Your task to perform on an android device: delete location history Image 0: 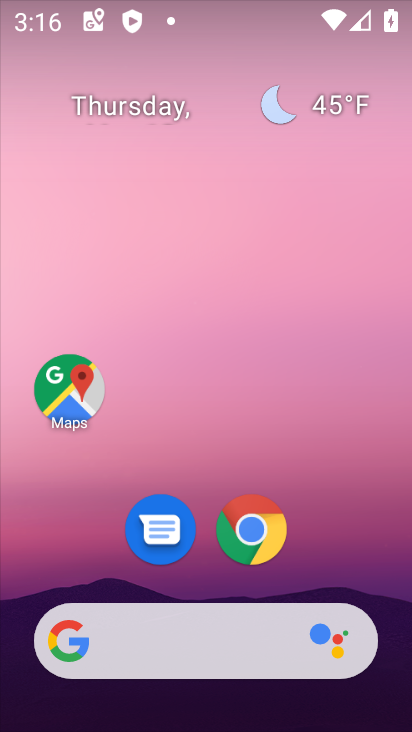
Step 0: drag from (364, 502) to (390, 2)
Your task to perform on an android device: delete location history Image 1: 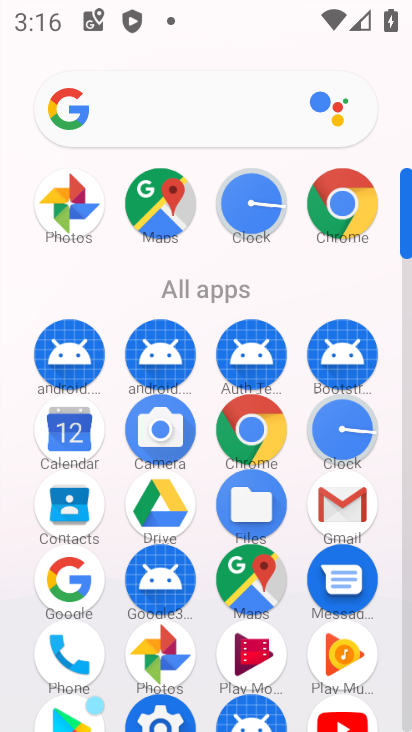
Step 1: drag from (384, 483) to (356, 23)
Your task to perform on an android device: delete location history Image 2: 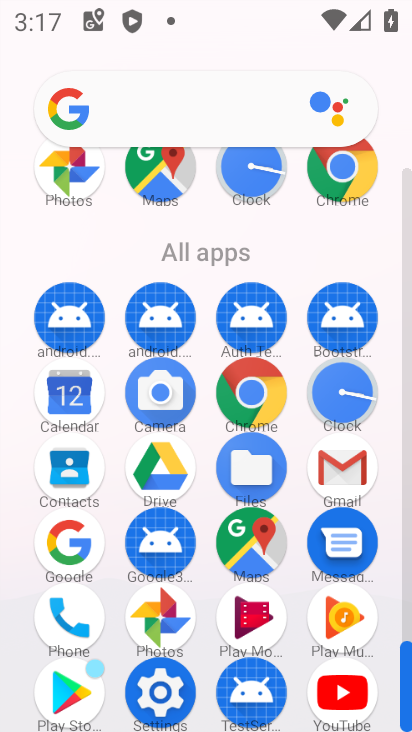
Step 2: click (142, 156)
Your task to perform on an android device: delete location history Image 3: 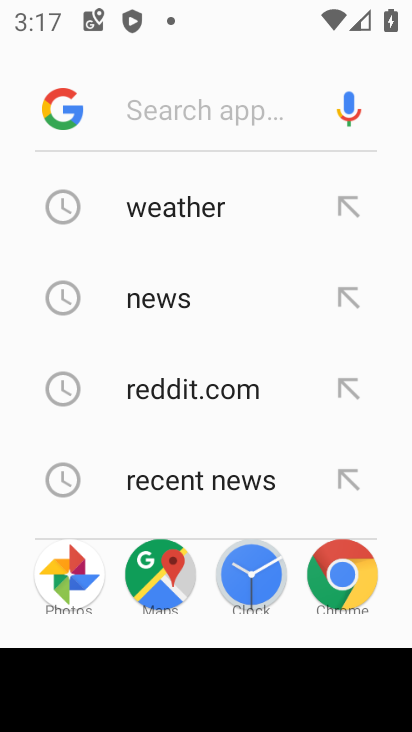
Step 3: drag from (225, 217) to (293, 545)
Your task to perform on an android device: delete location history Image 4: 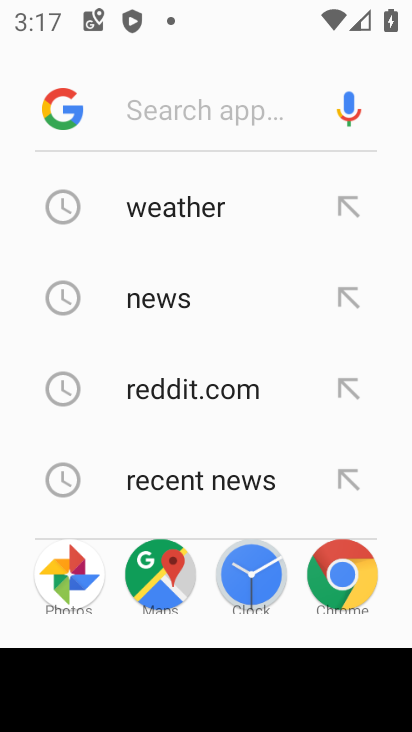
Step 4: press home button
Your task to perform on an android device: delete location history Image 5: 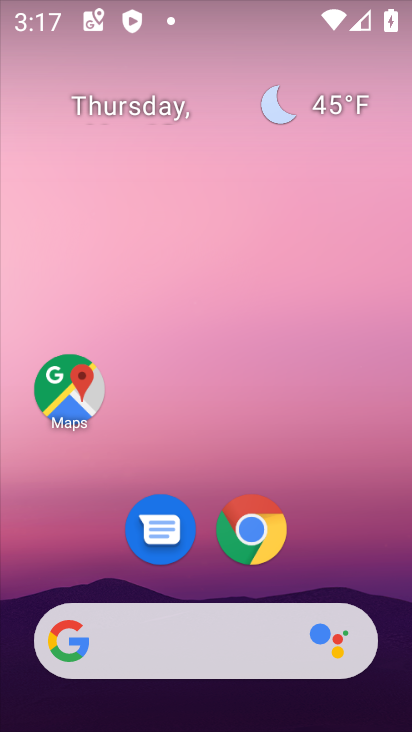
Step 5: click (75, 388)
Your task to perform on an android device: delete location history Image 6: 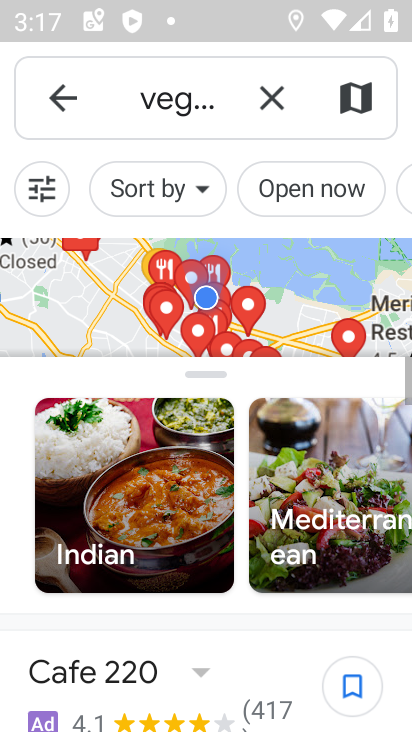
Step 6: click (87, 98)
Your task to perform on an android device: delete location history Image 7: 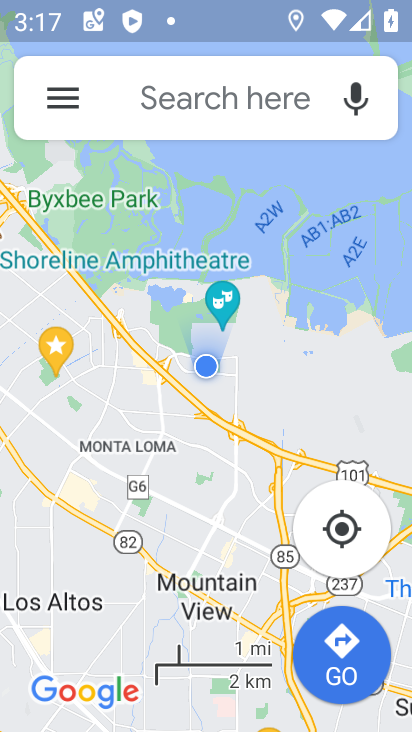
Step 7: click (43, 87)
Your task to perform on an android device: delete location history Image 8: 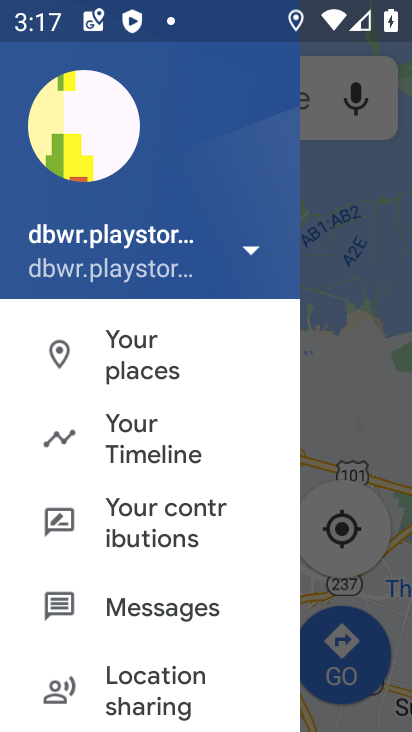
Step 8: click (172, 447)
Your task to perform on an android device: delete location history Image 9: 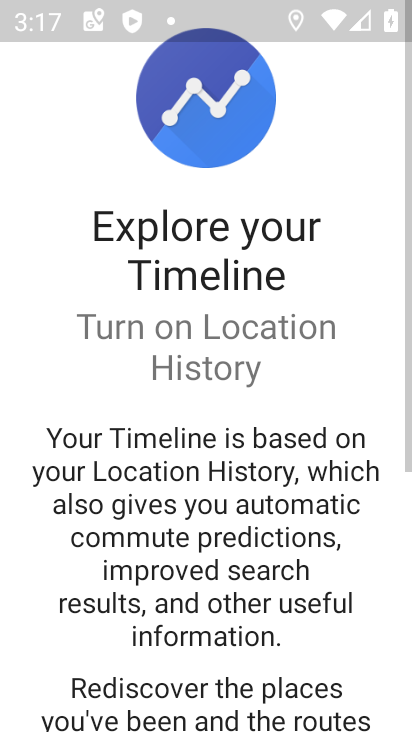
Step 9: drag from (227, 599) to (269, 218)
Your task to perform on an android device: delete location history Image 10: 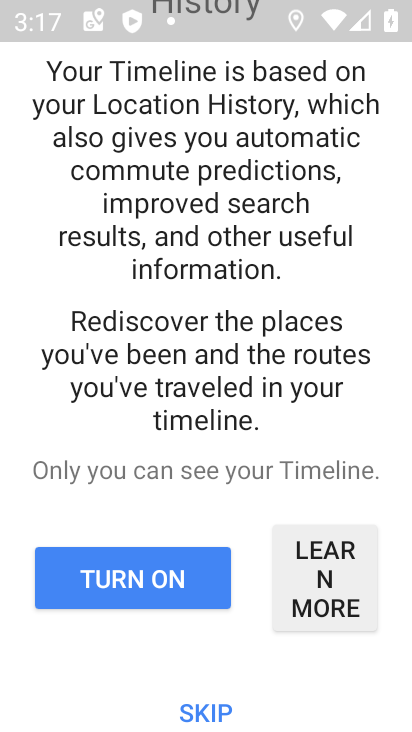
Step 10: drag from (229, 672) to (296, 281)
Your task to perform on an android device: delete location history Image 11: 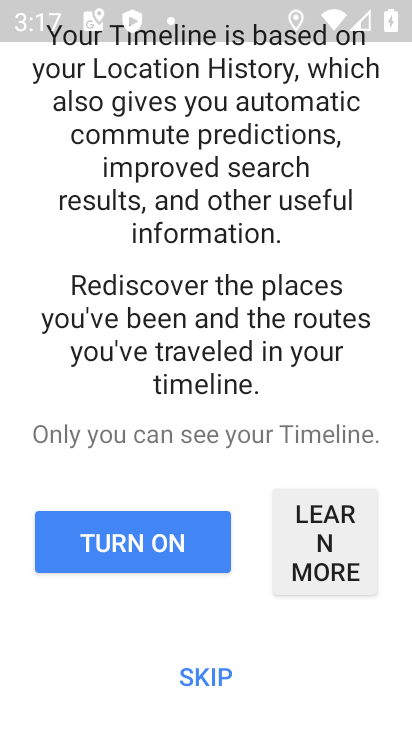
Step 11: click (349, 566)
Your task to perform on an android device: delete location history Image 12: 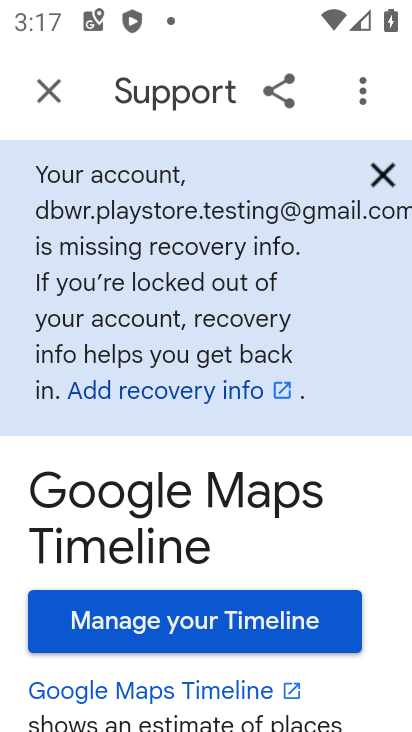
Step 12: drag from (268, 185) to (216, 558)
Your task to perform on an android device: delete location history Image 13: 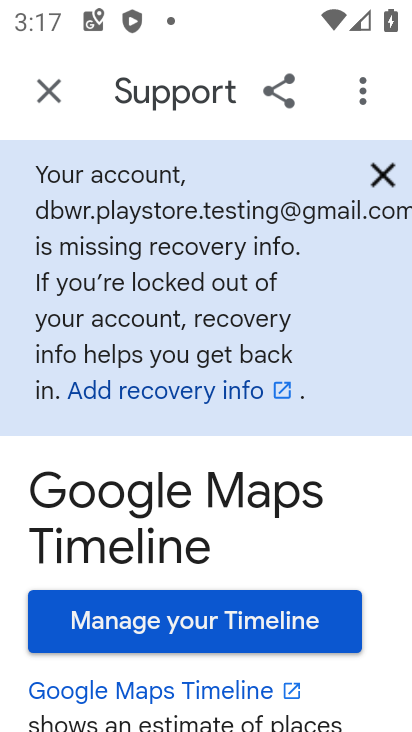
Step 13: click (355, 101)
Your task to perform on an android device: delete location history Image 14: 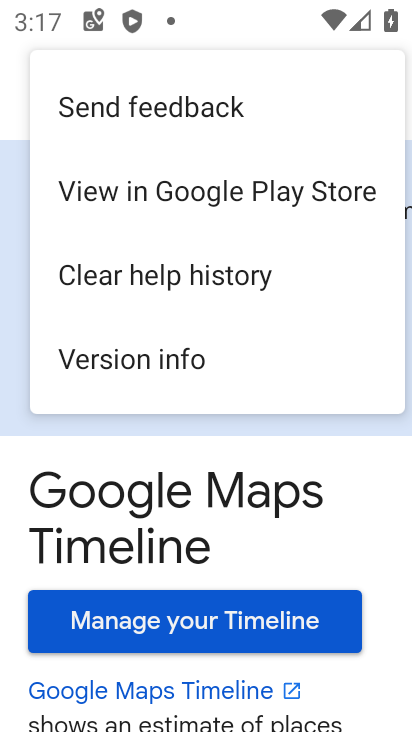
Step 14: click (347, 528)
Your task to perform on an android device: delete location history Image 15: 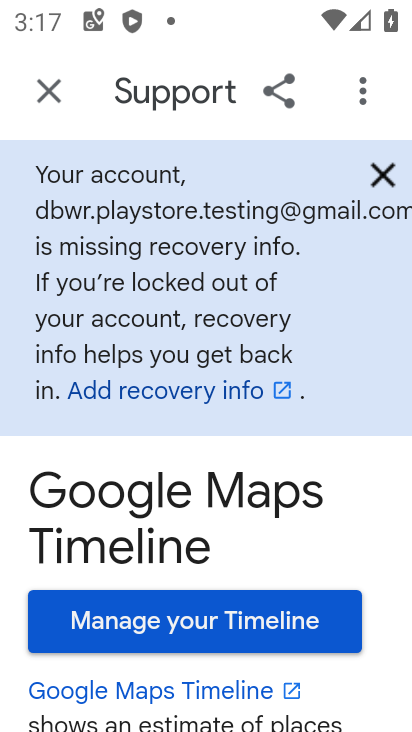
Step 15: drag from (347, 527) to (366, 231)
Your task to perform on an android device: delete location history Image 16: 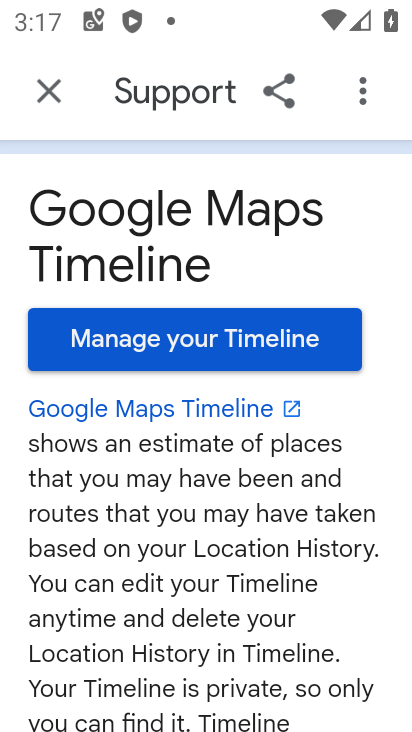
Step 16: drag from (221, 674) to (238, 260)
Your task to perform on an android device: delete location history Image 17: 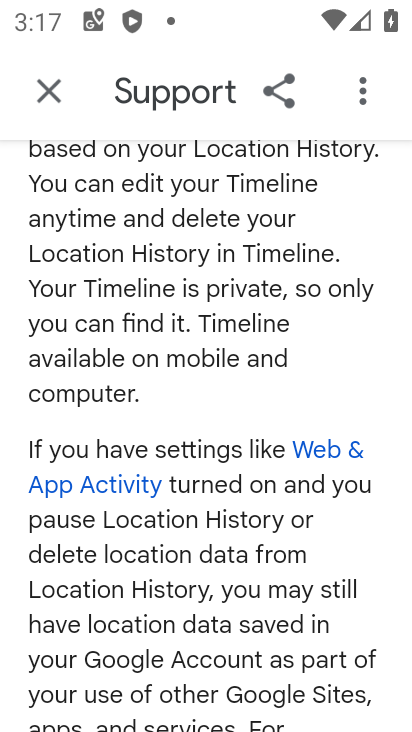
Step 17: drag from (197, 644) to (254, 174)
Your task to perform on an android device: delete location history Image 18: 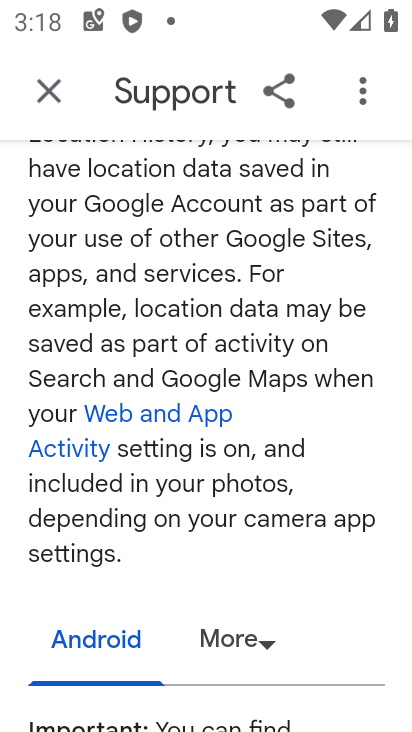
Step 18: drag from (146, 633) to (212, 125)
Your task to perform on an android device: delete location history Image 19: 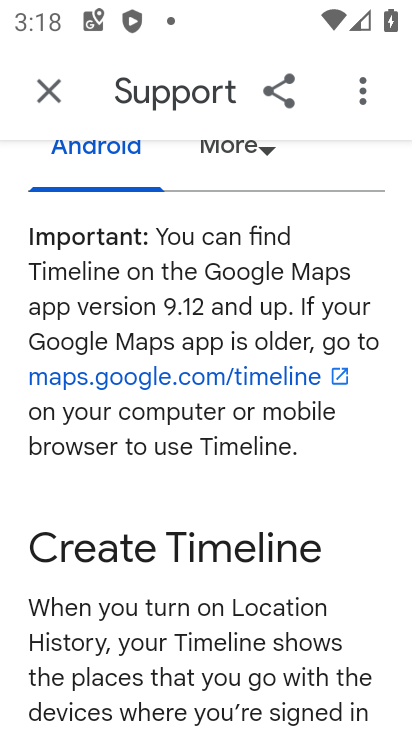
Step 19: click (56, 89)
Your task to perform on an android device: delete location history Image 20: 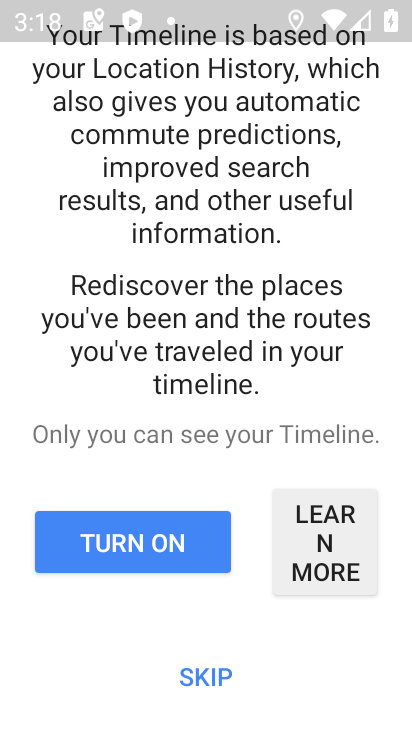
Step 20: click (206, 679)
Your task to perform on an android device: delete location history Image 21: 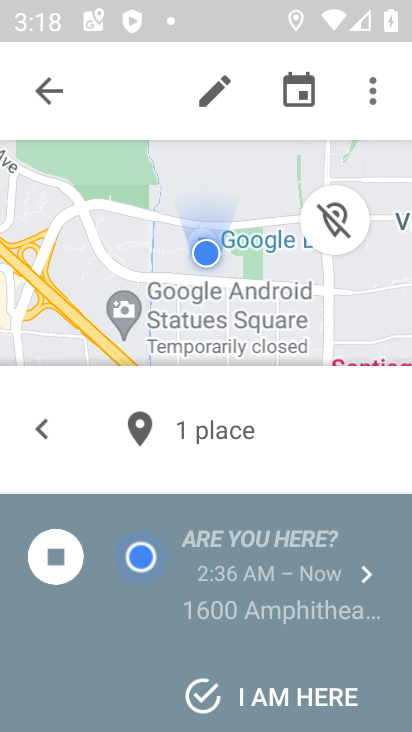
Step 21: click (361, 95)
Your task to perform on an android device: delete location history Image 22: 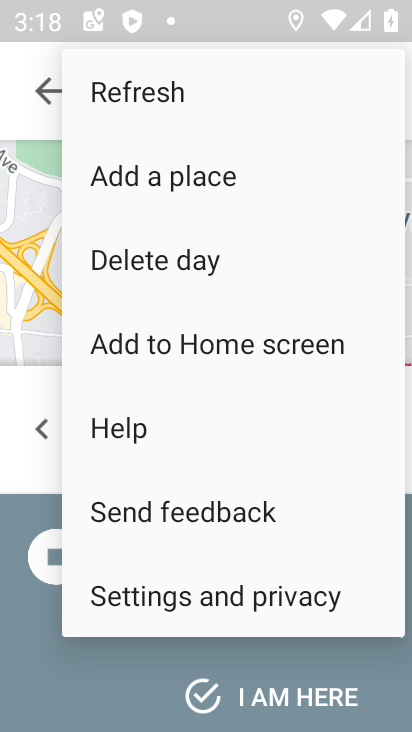
Step 22: click (198, 611)
Your task to perform on an android device: delete location history Image 23: 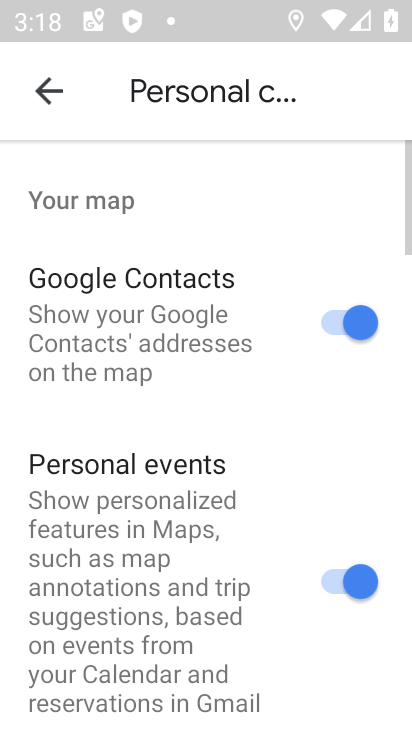
Step 23: drag from (198, 611) to (203, 247)
Your task to perform on an android device: delete location history Image 24: 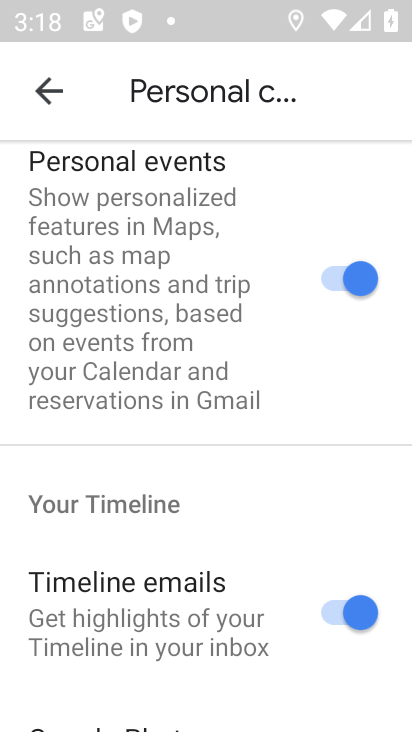
Step 24: drag from (209, 615) to (262, 178)
Your task to perform on an android device: delete location history Image 25: 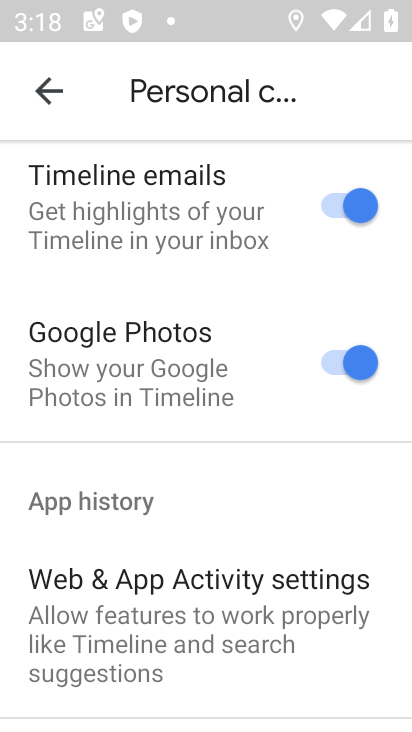
Step 25: drag from (169, 663) to (252, 296)
Your task to perform on an android device: delete location history Image 26: 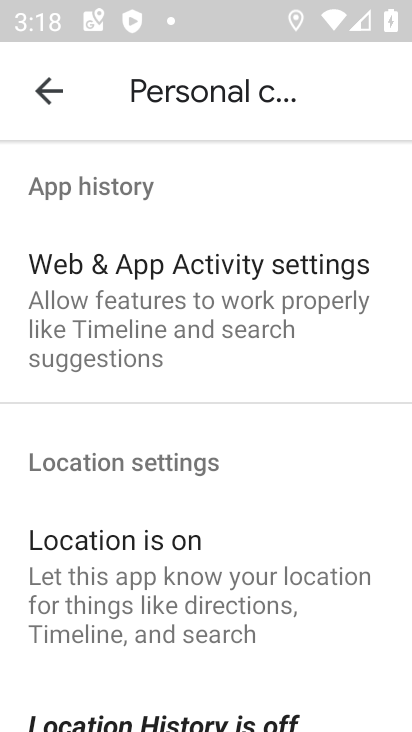
Step 26: drag from (215, 590) to (244, 328)
Your task to perform on an android device: delete location history Image 27: 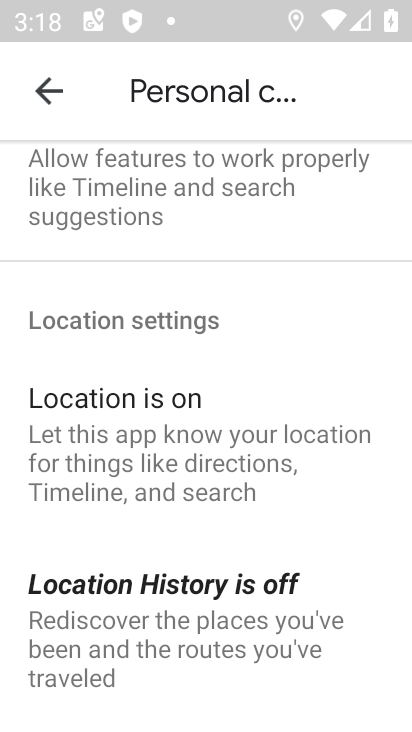
Step 27: drag from (191, 634) to (199, 377)
Your task to perform on an android device: delete location history Image 28: 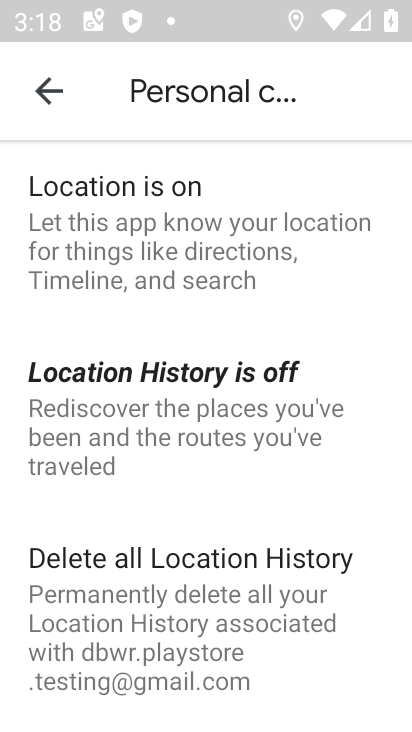
Step 28: drag from (190, 634) to (205, 315)
Your task to perform on an android device: delete location history Image 29: 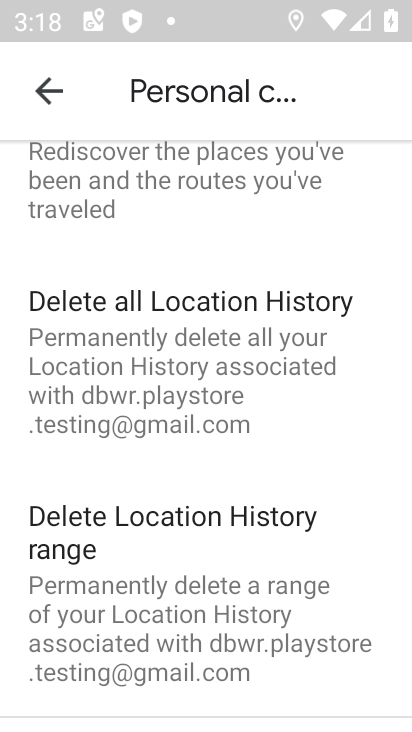
Step 29: click (205, 315)
Your task to perform on an android device: delete location history Image 30: 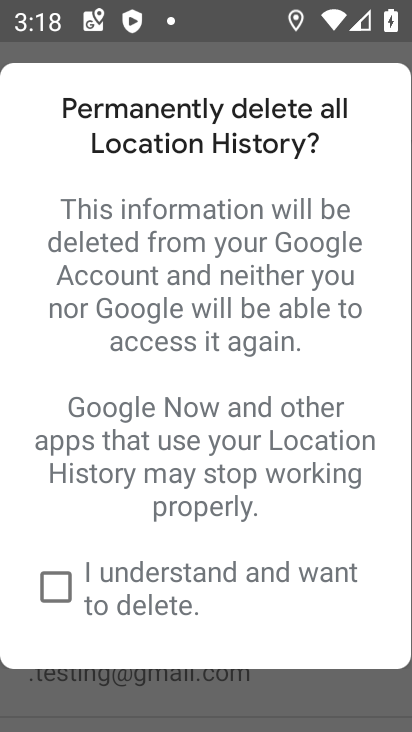
Step 30: click (69, 586)
Your task to perform on an android device: delete location history Image 31: 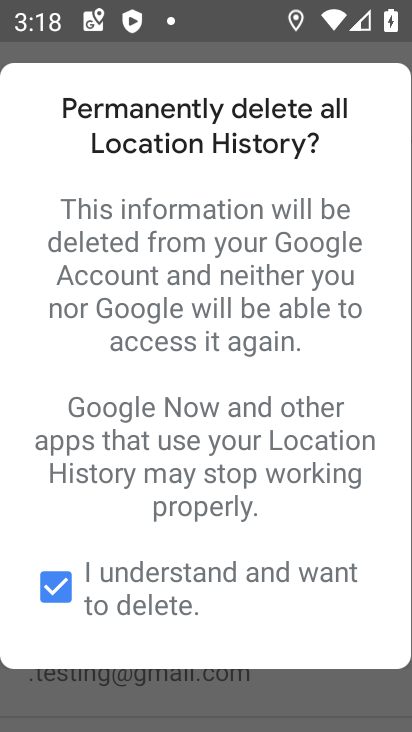
Step 31: task complete